Your task to perform on an android device: Go to location settings Image 0: 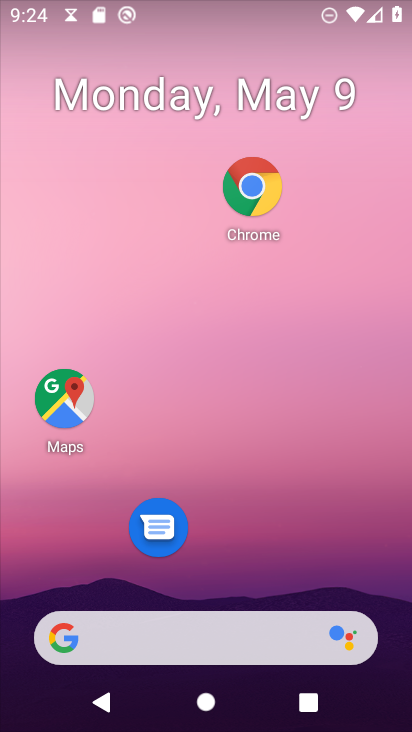
Step 0: drag from (205, 585) to (266, 19)
Your task to perform on an android device: Go to location settings Image 1: 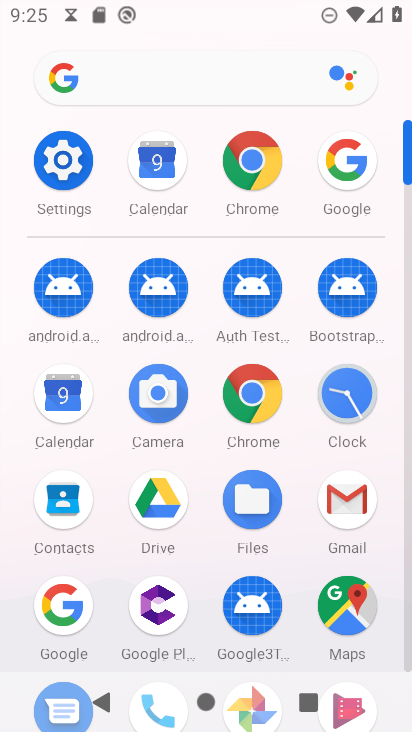
Step 1: click (61, 161)
Your task to perform on an android device: Go to location settings Image 2: 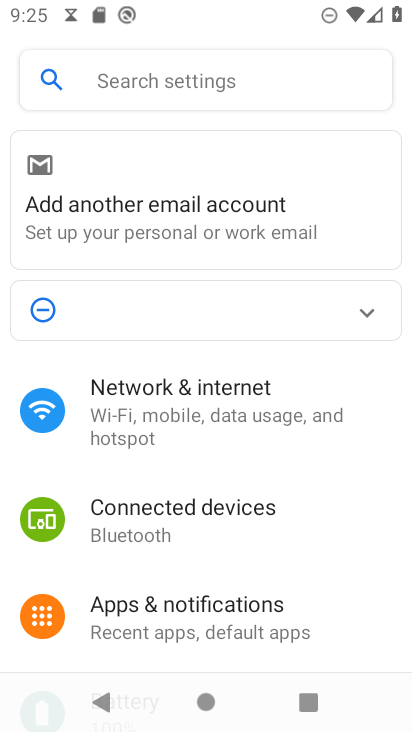
Step 2: drag from (208, 594) to (275, 15)
Your task to perform on an android device: Go to location settings Image 3: 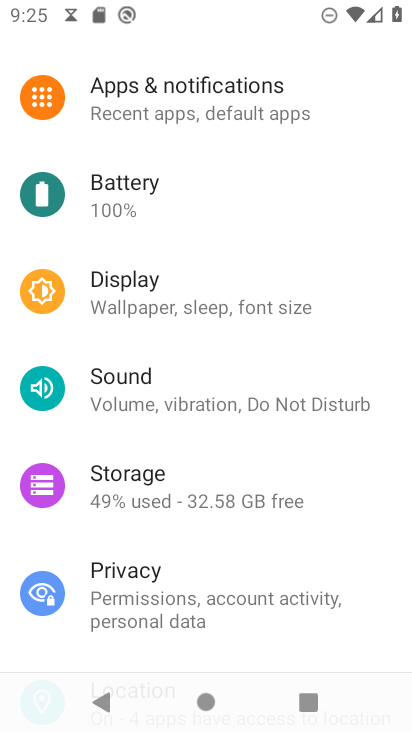
Step 3: drag from (188, 583) to (276, 2)
Your task to perform on an android device: Go to location settings Image 4: 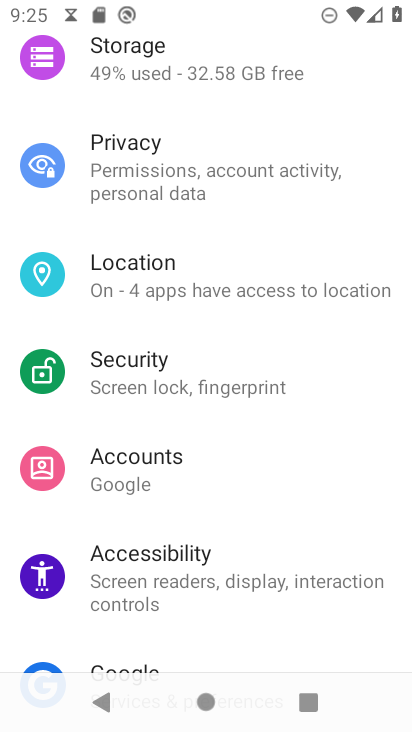
Step 4: click (148, 276)
Your task to perform on an android device: Go to location settings Image 5: 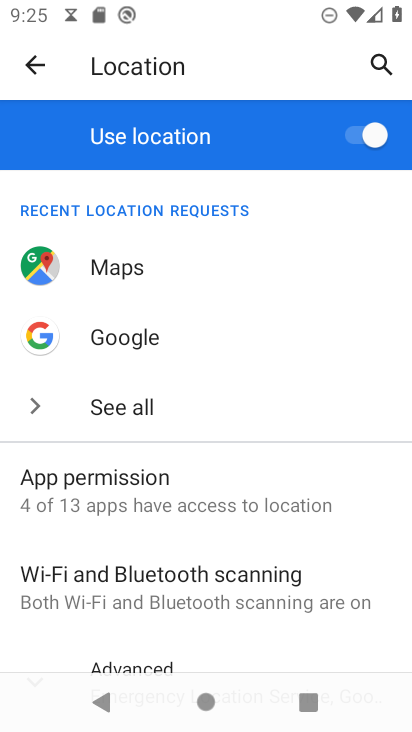
Step 5: drag from (176, 545) to (229, 204)
Your task to perform on an android device: Go to location settings Image 6: 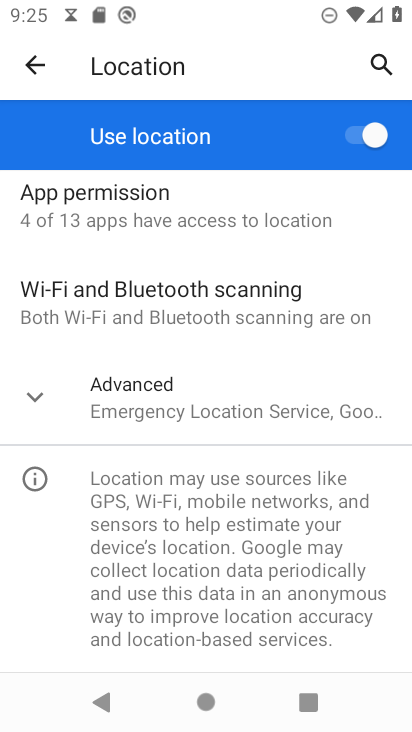
Step 6: click (32, 444)
Your task to perform on an android device: Go to location settings Image 7: 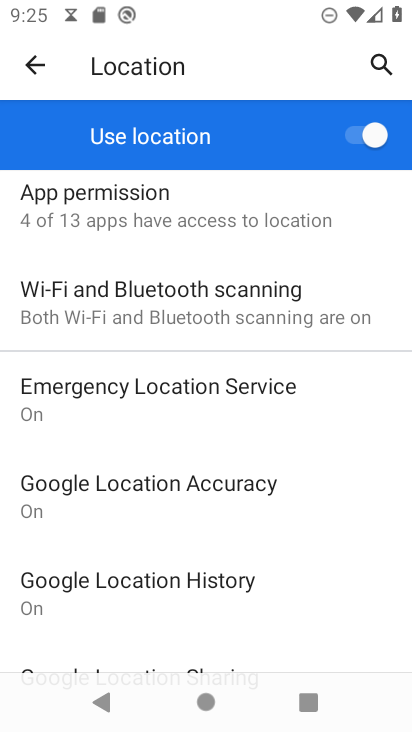
Step 7: task complete